Your task to perform on an android device: turn on showing notifications on the lock screen Image 0: 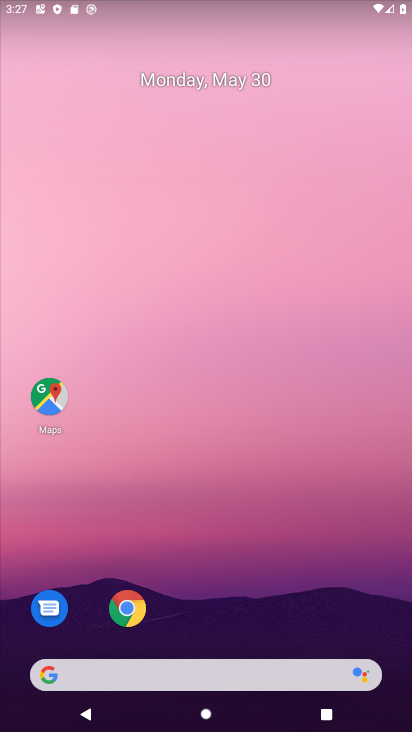
Step 0: drag from (272, 595) to (272, 210)
Your task to perform on an android device: turn on showing notifications on the lock screen Image 1: 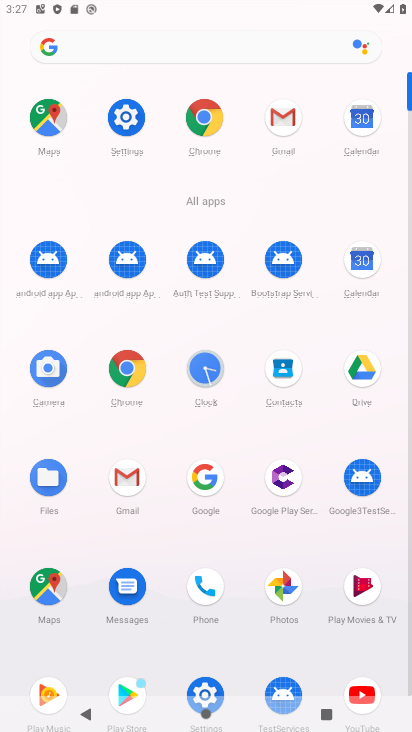
Step 1: click (117, 114)
Your task to perform on an android device: turn on showing notifications on the lock screen Image 2: 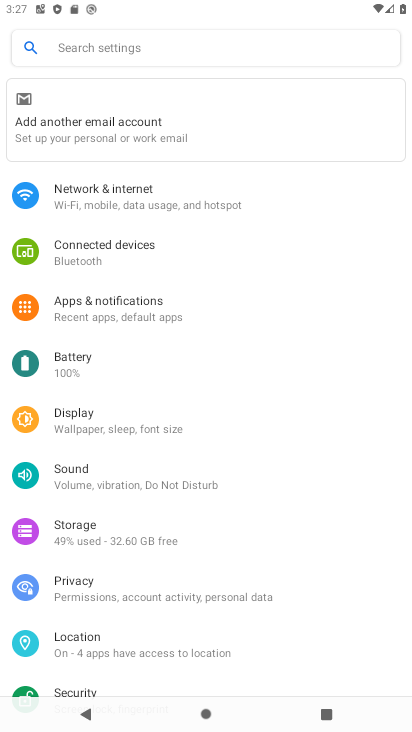
Step 2: click (125, 311)
Your task to perform on an android device: turn on showing notifications on the lock screen Image 3: 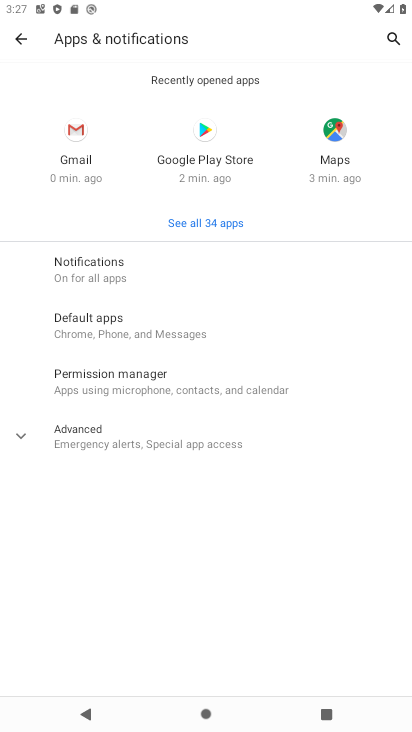
Step 3: click (141, 278)
Your task to perform on an android device: turn on showing notifications on the lock screen Image 4: 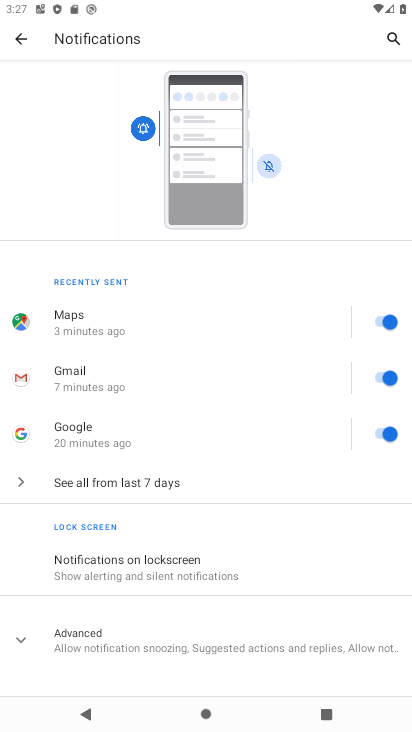
Step 4: click (141, 573)
Your task to perform on an android device: turn on showing notifications on the lock screen Image 5: 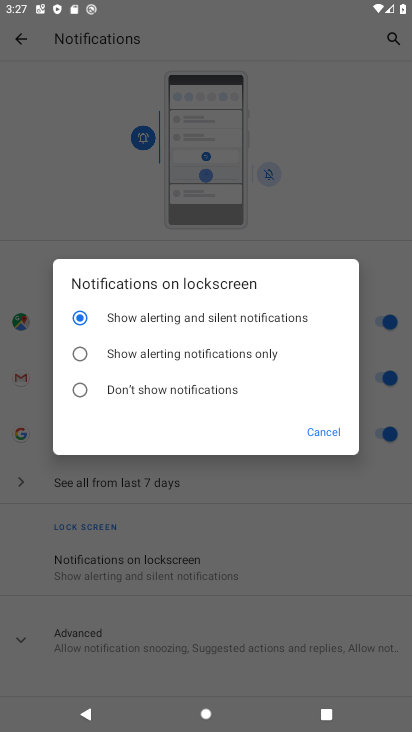
Step 5: click (166, 351)
Your task to perform on an android device: turn on showing notifications on the lock screen Image 6: 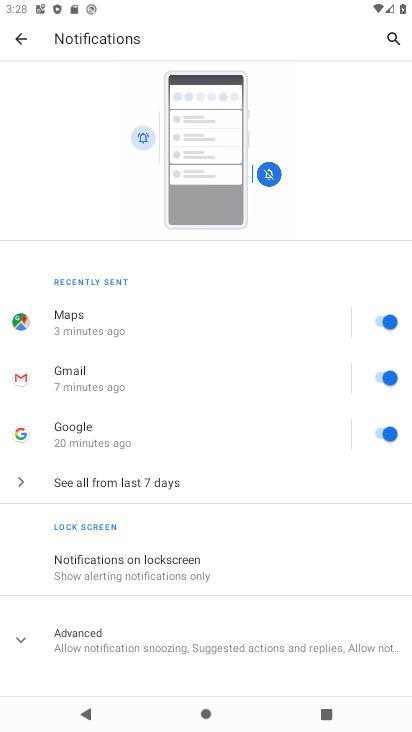
Step 6: task complete